Your task to perform on an android device: see sites visited before in the chrome app Image 0: 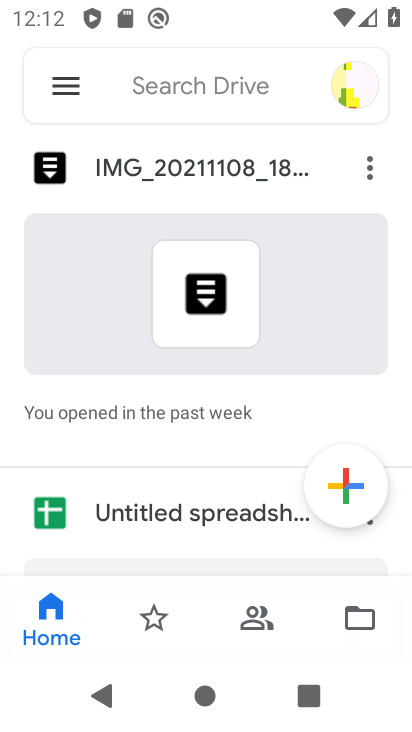
Step 0: press home button
Your task to perform on an android device: see sites visited before in the chrome app Image 1: 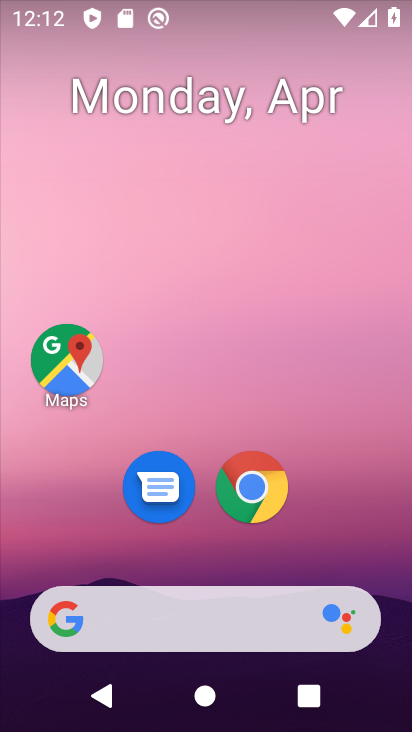
Step 1: drag from (395, 616) to (291, 64)
Your task to perform on an android device: see sites visited before in the chrome app Image 2: 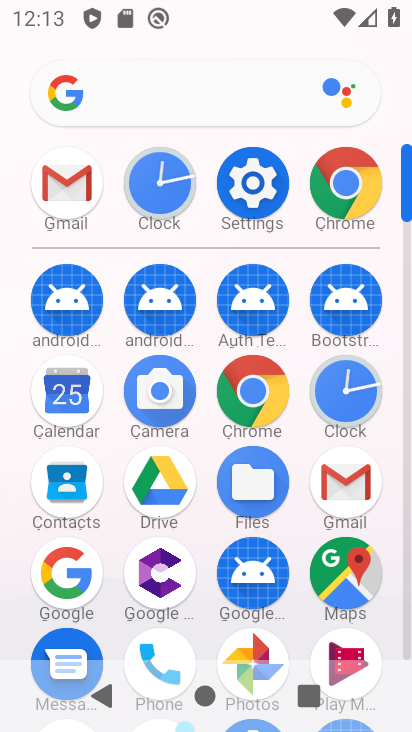
Step 2: click (273, 403)
Your task to perform on an android device: see sites visited before in the chrome app Image 3: 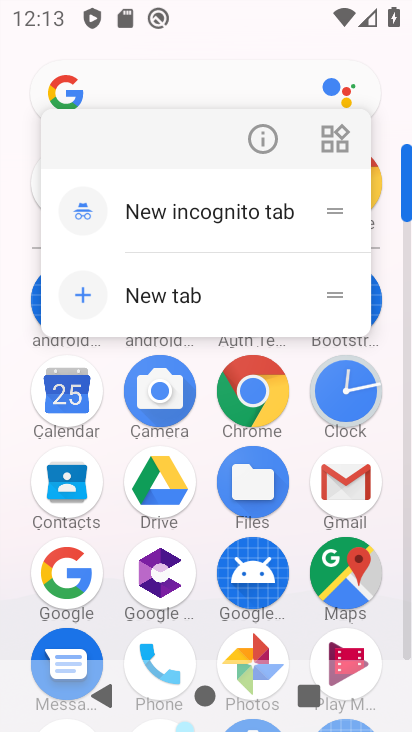
Step 3: click (273, 403)
Your task to perform on an android device: see sites visited before in the chrome app Image 4: 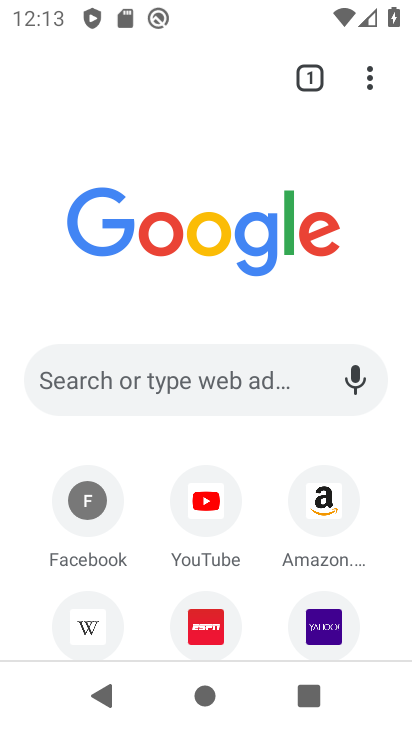
Step 4: click (367, 75)
Your task to perform on an android device: see sites visited before in the chrome app Image 5: 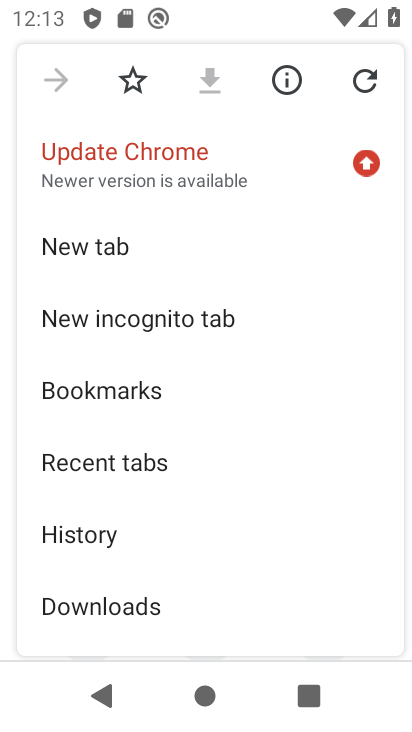
Step 5: click (182, 536)
Your task to perform on an android device: see sites visited before in the chrome app Image 6: 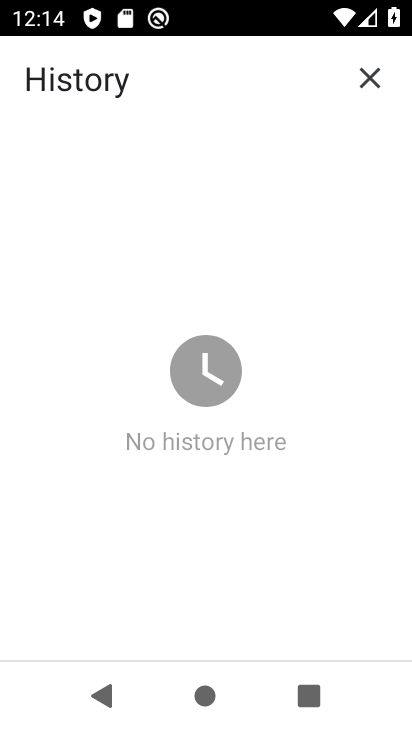
Step 6: task complete